Your task to perform on an android device: Go to battery settings Image 0: 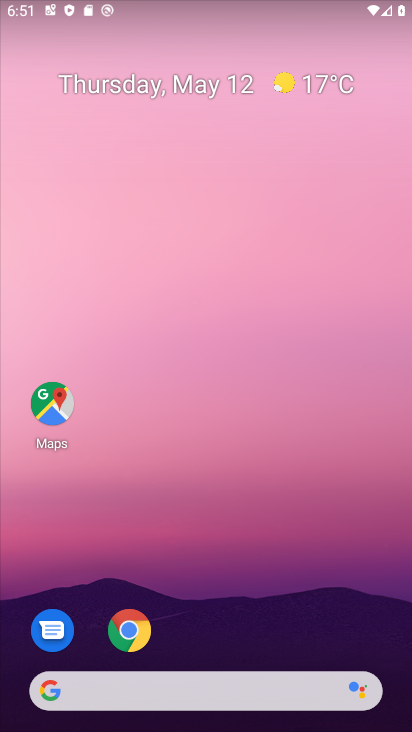
Step 0: drag from (351, 618) to (262, 40)
Your task to perform on an android device: Go to battery settings Image 1: 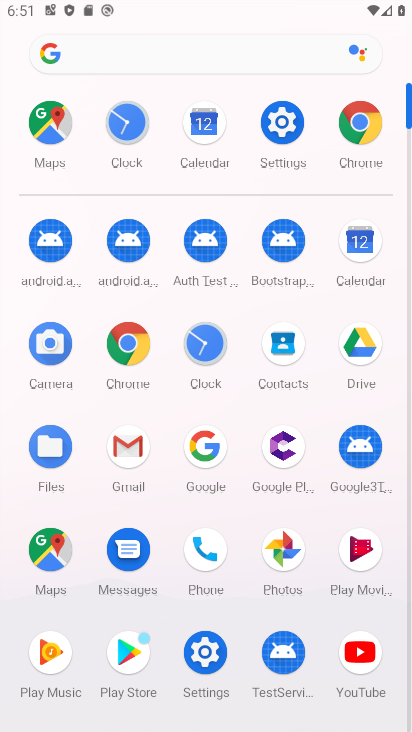
Step 1: click (206, 662)
Your task to perform on an android device: Go to battery settings Image 2: 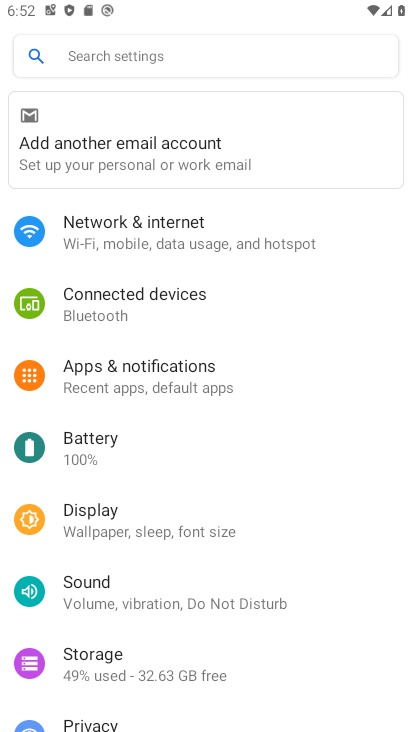
Step 2: click (131, 445)
Your task to perform on an android device: Go to battery settings Image 3: 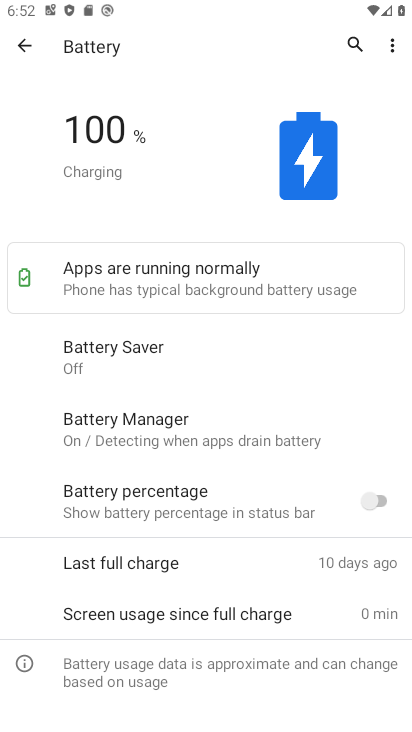
Step 3: task complete